Your task to perform on an android device: What is the news today? Image 0: 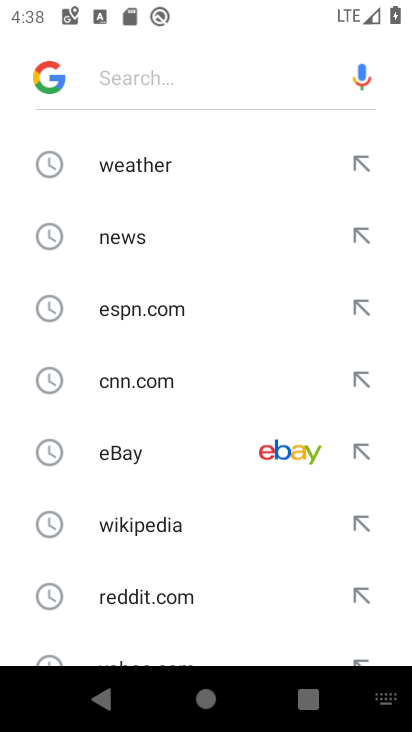
Step 0: press home button
Your task to perform on an android device: What is the news today? Image 1: 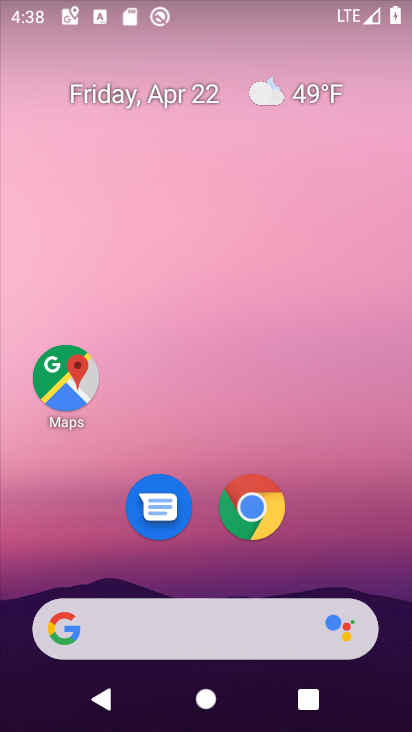
Step 1: task complete